Your task to perform on an android device: turn pop-ups off in chrome Image 0: 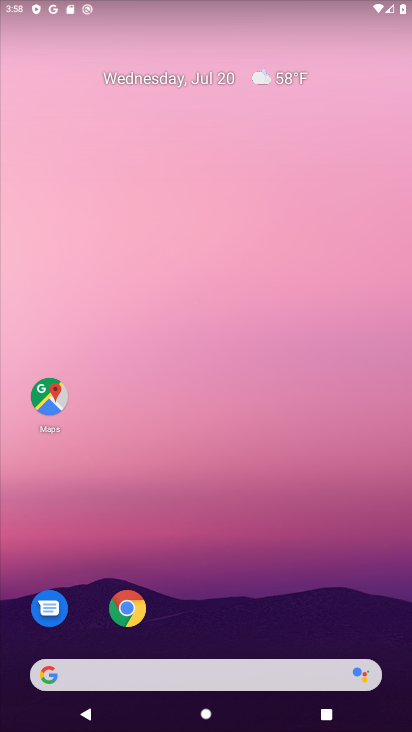
Step 0: drag from (210, 624) to (271, 0)
Your task to perform on an android device: turn pop-ups off in chrome Image 1: 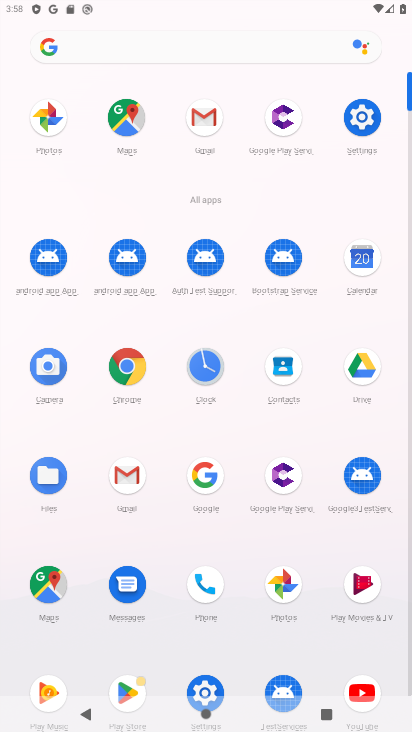
Step 1: click (123, 380)
Your task to perform on an android device: turn pop-ups off in chrome Image 2: 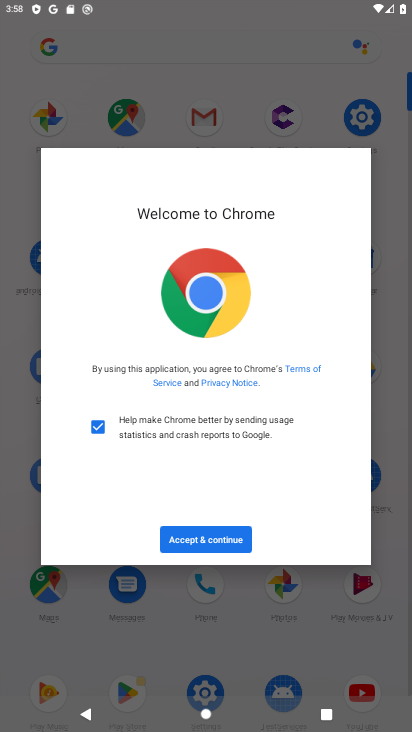
Step 2: click (201, 547)
Your task to perform on an android device: turn pop-ups off in chrome Image 3: 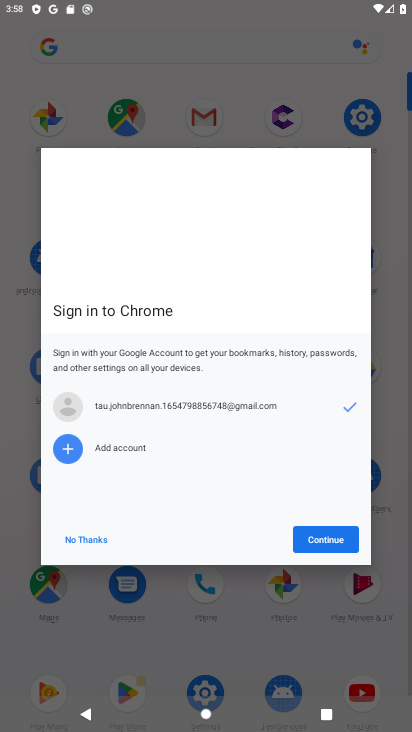
Step 3: click (328, 541)
Your task to perform on an android device: turn pop-ups off in chrome Image 4: 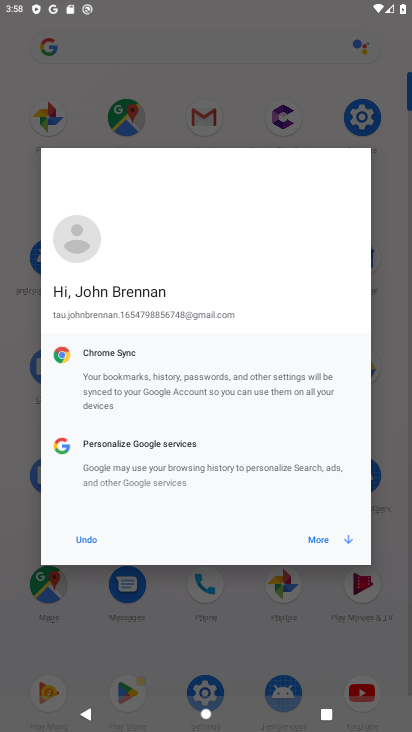
Step 4: click (328, 542)
Your task to perform on an android device: turn pop-ups off in chrome Image 5: 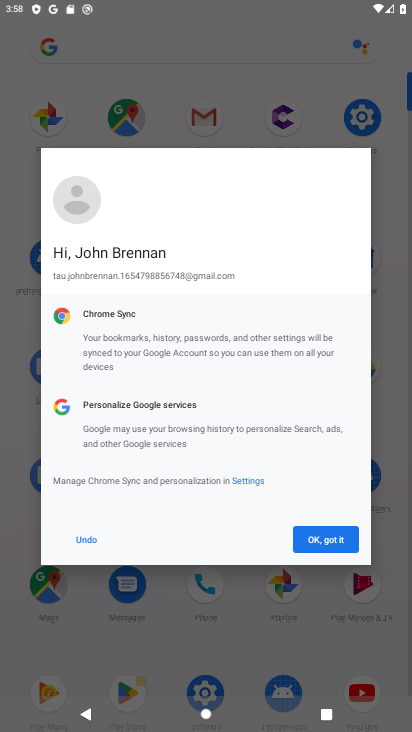
Step 5: click (327, 544)
Your task to perform on an android device: turn pop-ups off in chrome Image 6: 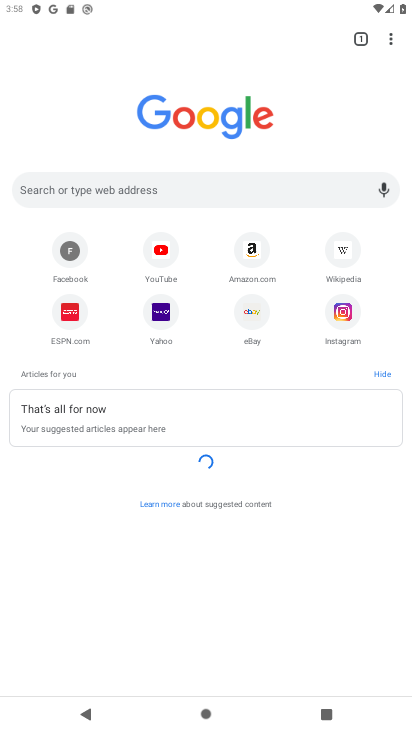
Step 6: click (392, 39)
Your task to perform on an android device: turn pop-ups off in chrome Image 7: 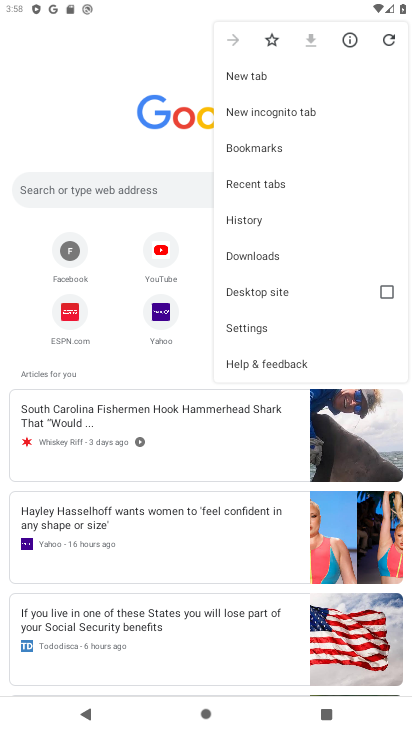
Step 7: click (254, 331)
Your task to perform on an android device: turn pop-ups off in chrome Image 8: 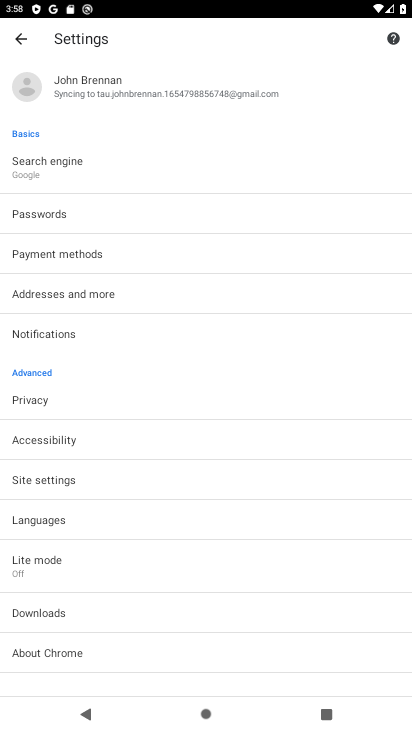
Step 8: click (64, 482)
Your task to perform on an android device: turn pop-ups off in chrome Image 9: 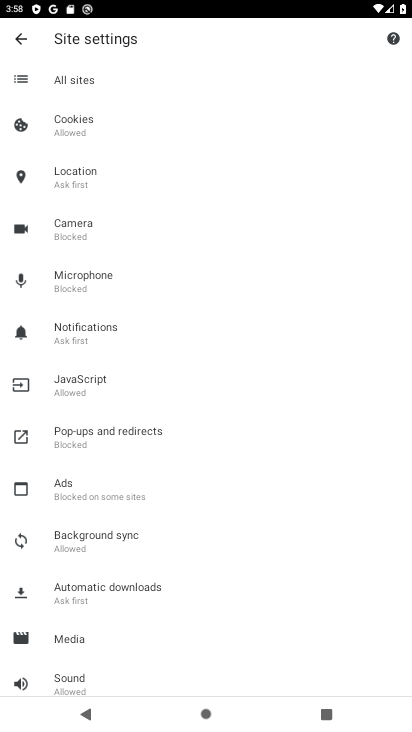
Step 9: click (106, 435)
Your task to perform on an android device: turn pop-ups off in chrome Image 10: 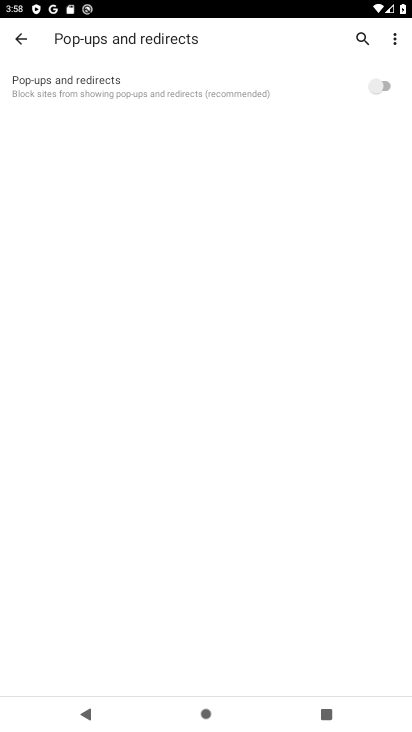
Step 10: task complete